Your task to perform on an android device: Go to CNN.com Image 0: 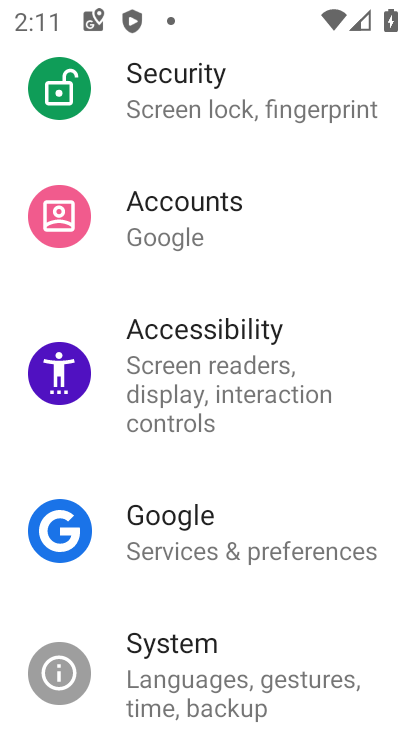
Step 0: press home button
Your task to perform on an android device: Go to CNN.com Image 1: 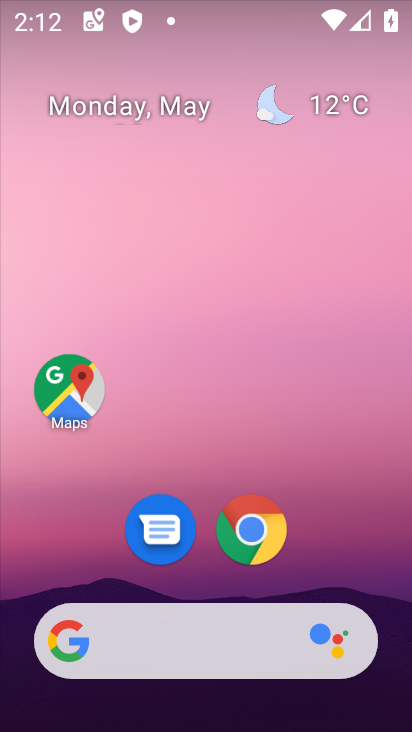
Step 1: click (257, 535)
Your task to perform on an android device: Go to CNN.com Image 2: 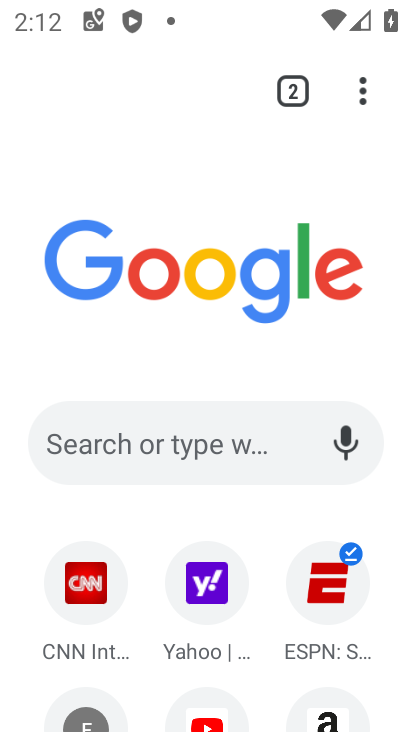
Step 2: click (104, 590)
Your task to perform on an android device: Go to CNN.com Image 3: 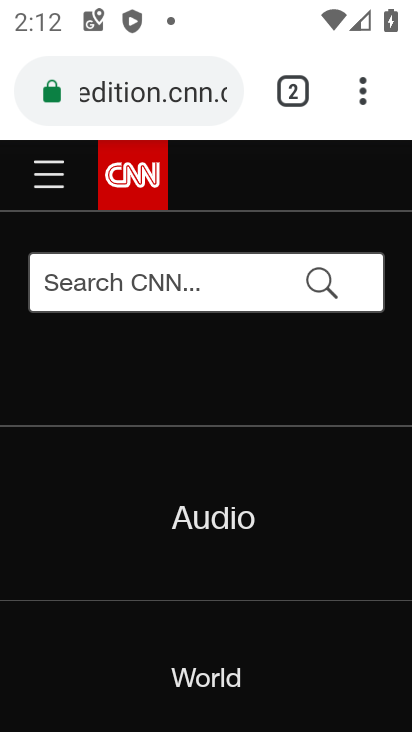
Step 3: task complete